Your task to perform on an android device: turn off smart reply in the gmail app Image 0: 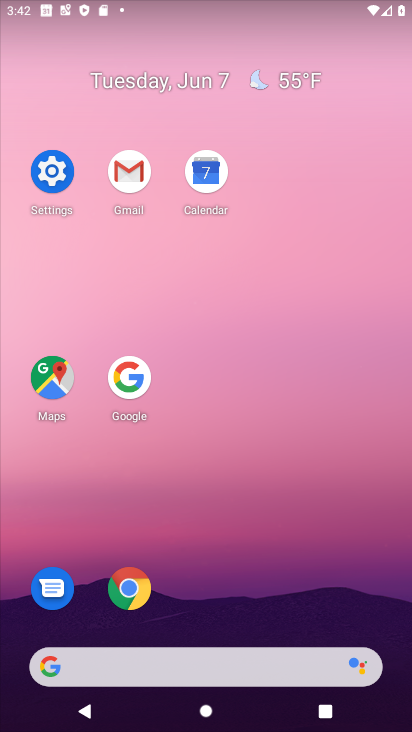
Step 0: click (127, 172)
Your task to perform on an android device: turn off smart reply in the gmail app Image 1: 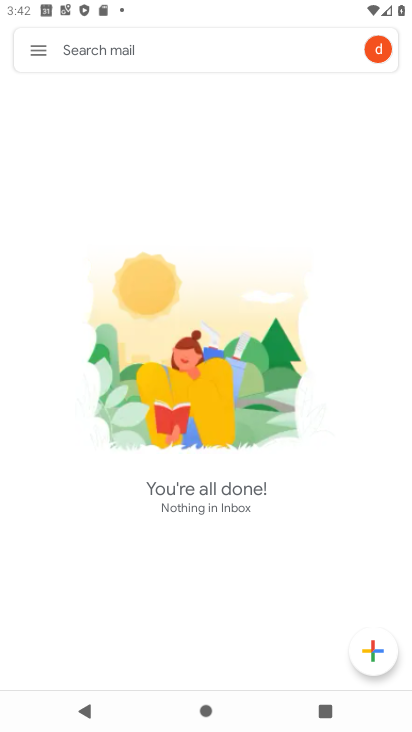
Step 1: click (48, 50)
Your task to perform on an android device: turn off smart reply in the gmail app Image 2: 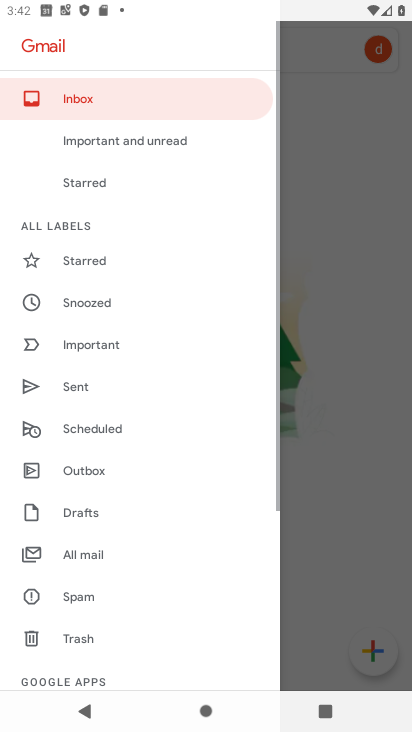
Step 2: drag from (150, 611) to (201, 131)
Your task to perform on an android device: turn off smart reply in the gmail app Image 3: 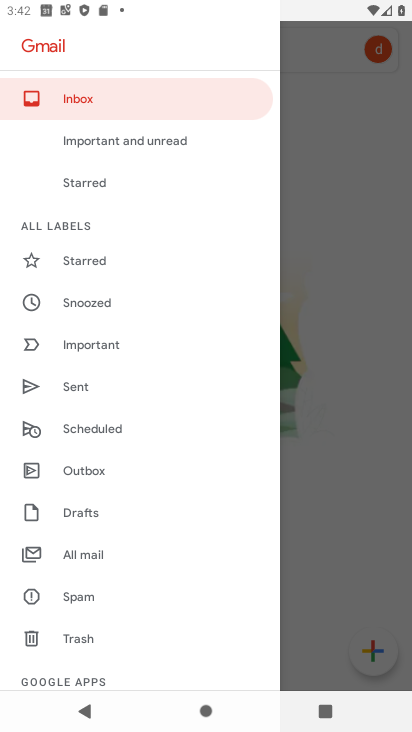
Step 3: drag from (145, 601) to (129, 206)
Your task to perform on an android device: turn off smart reply in the gmail app Image 4: 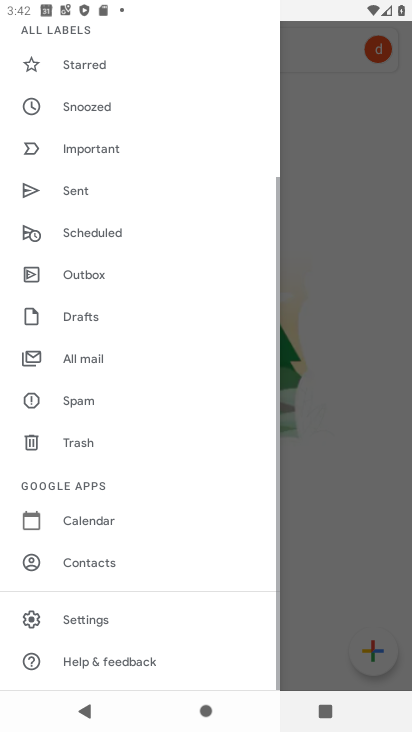
Step 4: click (131, 618)
Your task to perform on an android device: turn off smart reply in the gmail app Image 5: 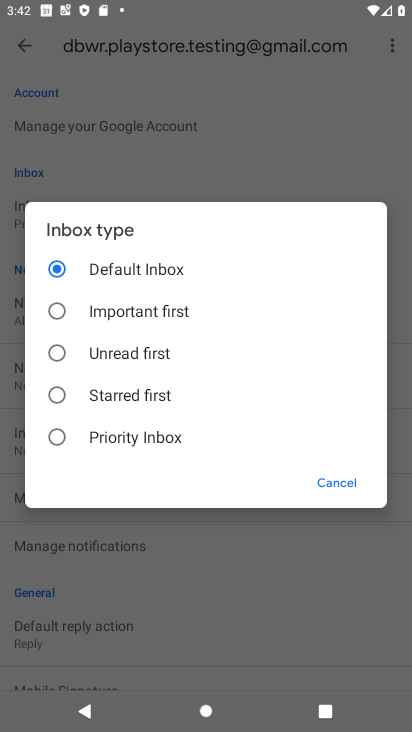
Step 5: click (340, 499)
Your task to perform on an android device: turn off smart reply in the gmail app Image 6: 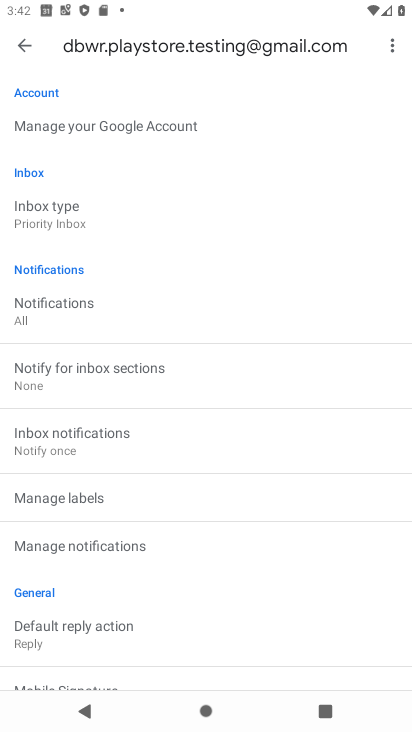
Step 6: drag from (154, 575) to (147, 210)
Your task to perform on an android device: turn off smart reply in the gmail app Image 7: 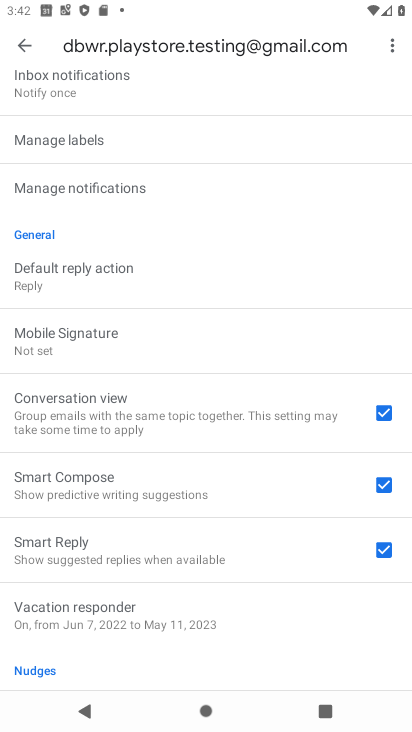
Step 7: click (345, 537)
Your task to perform on an android device: turn off smart reply in the gmail app Image 8: 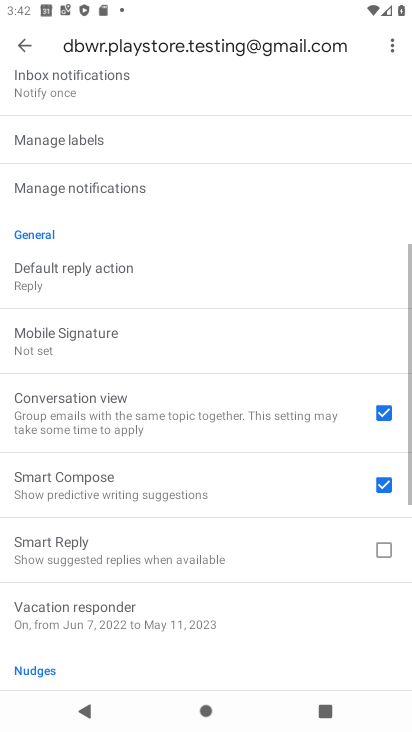
Step 8: task complete